Your task to perform on an android device: turn off smart reply in the gmail app Image 0: 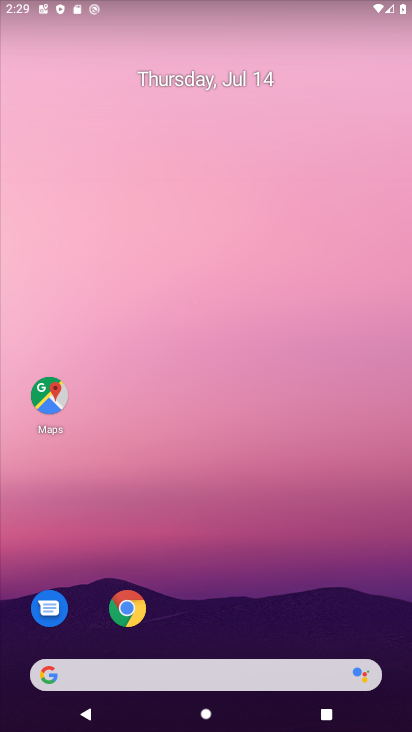
Step 0: drag from (241, 623) to (310, 18)
Your task to perform on an android device: turn off smart reply in the gmail app Image 1: 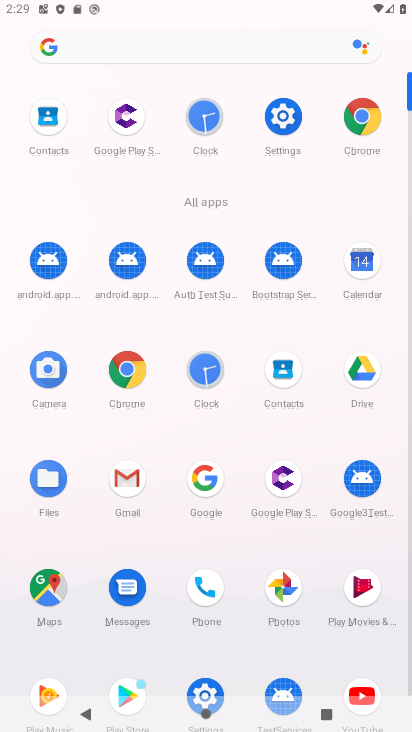
Step 1: click (148, 482)
Your task to perform on an android device: turn off smart reply in the gmail app Image 2: 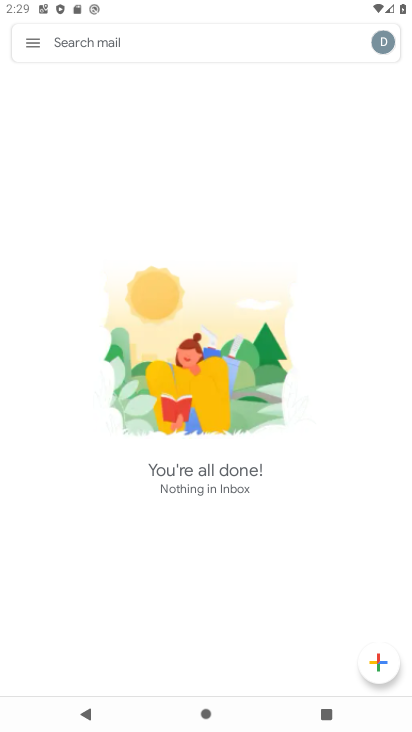
Step 2: click (34, 37)
Your task to perform on an android device: turn off smart reply in the gmail app Image 3: 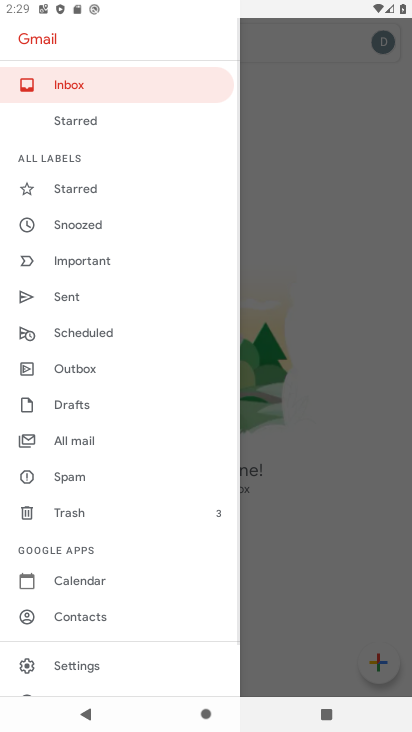
Step 3: click (87, 668)
Your task to perform on an android device: turn off smart reply in the gmail app Image 4: 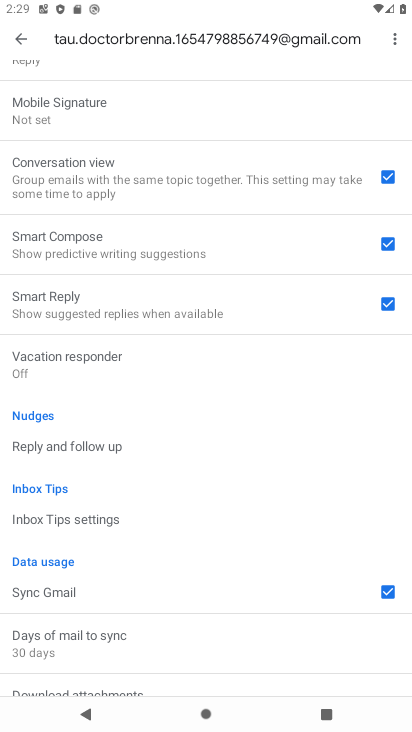
Step 4: click (391, 306)
Your task to perform on an android device: turn off smart reply in the gmail app Image 5: 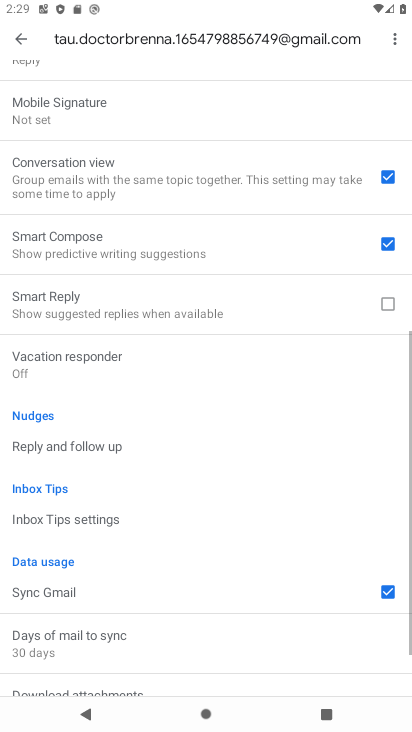
Step 5: task complete